Your task to perform on an android device: Open network settings Image 0: 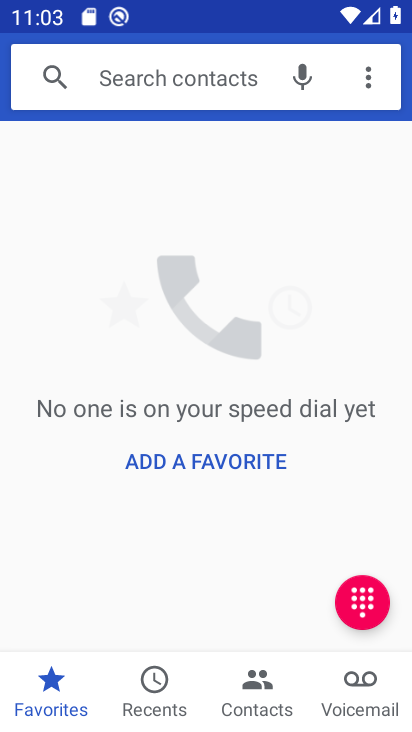
Step 0: press home button
Your task to perform on an android device: Open network settings Image 1: 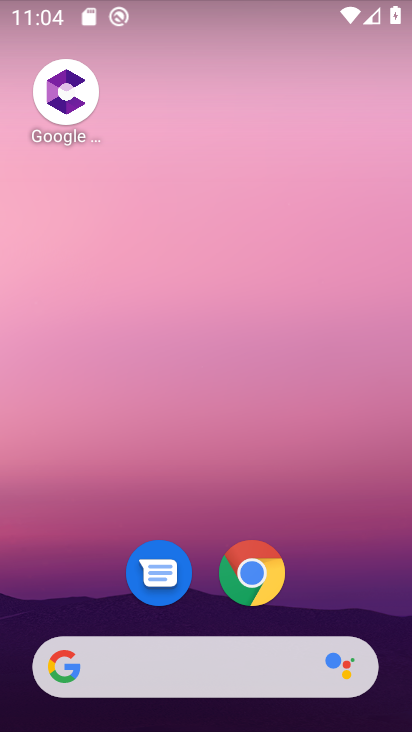
Step 1: drag from (146, 730) to (195, 143)
Your task to perform on an android device: Open network settings Image 2: 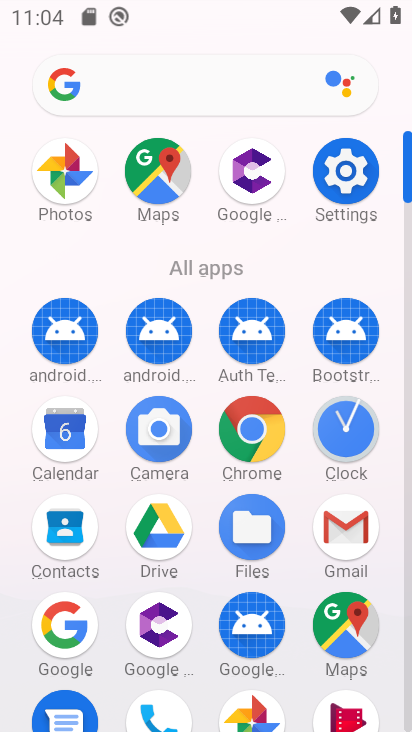
Step 2: click (353, 186)
Your task to perform on an android device: Open network settings Image 3: 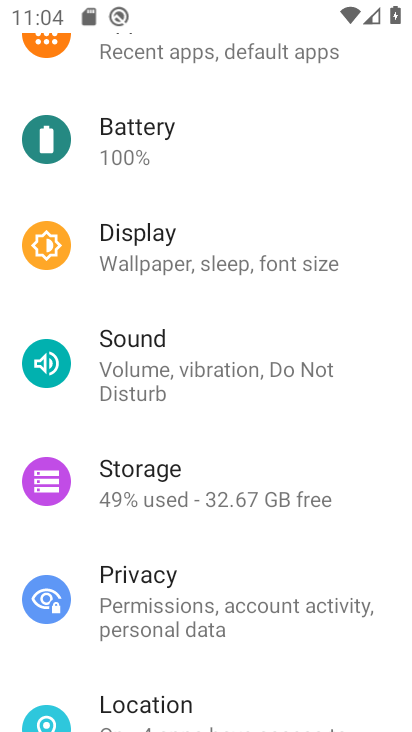
Step 3: drag from (268, 128) to (266, 544)
Your task to perform on an android device: Open network settings Image 4: 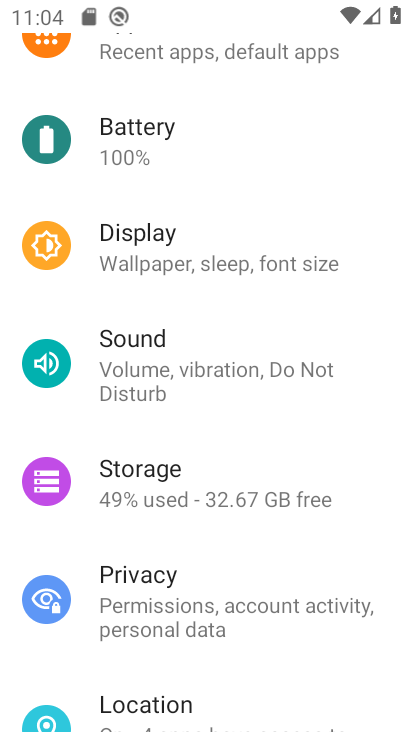
Step 4: drag from (210, 97) to (220, 543)
Your task to perform on an android device: Open network settings Image 5: 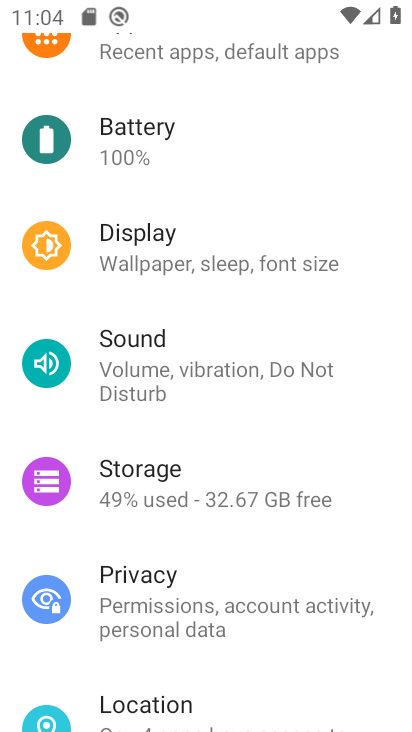
Step 5: drag from (46, 100) to (22, 586)
Your task to perform on an android device: Open network settings Image 6: 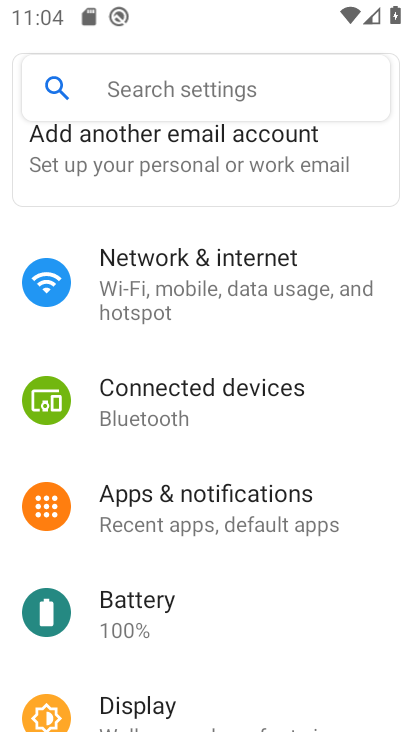
Step 6: click (204, 286)
Your task to perform on an android device: Open network settings Image 7: 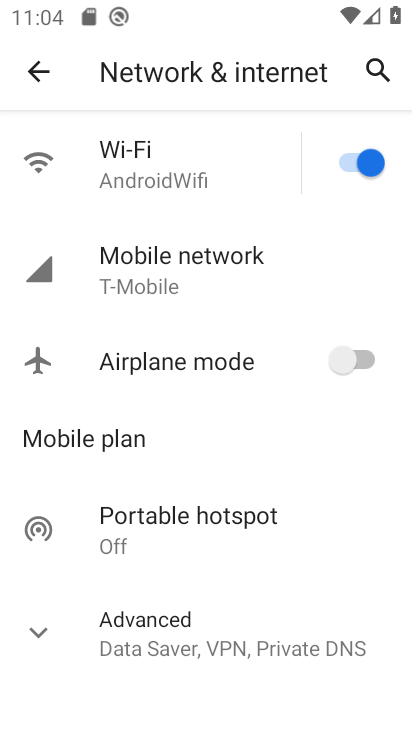
Step 7: click (192, 281)
Your task to perform on an android device: Open network settings Image 8: 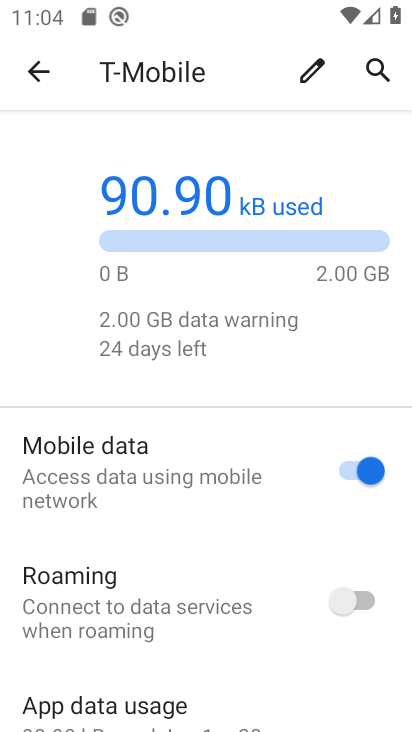
Step 8: drag from (190, 663) to (242, 228)
Your task to perform on an android device: Open network settings Image 9: 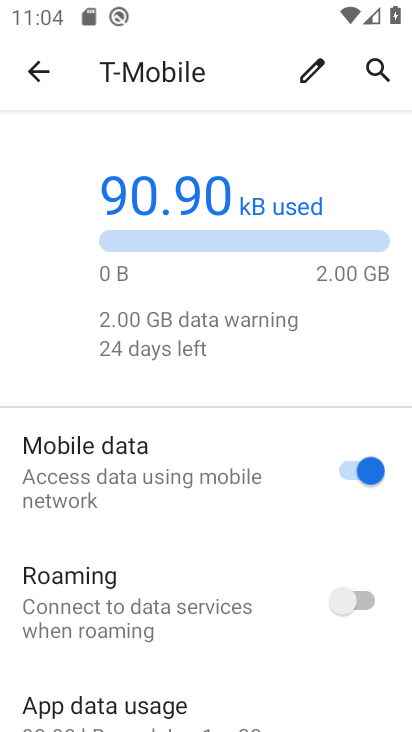
Step 9: drag from (184, 695) to (215, 298)
Your task to perform on an android device: Open network settings Image 10: 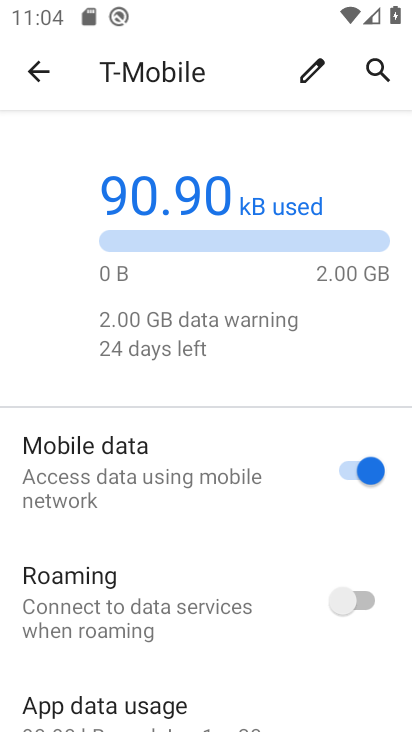
Step 10: drag from (206, 652) to (260, 286)
Your task to perform on an android device: Open network settings Image 11: 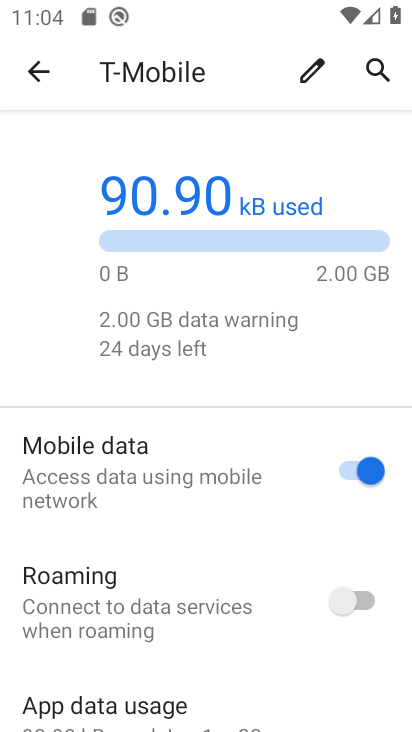
Step 11: drag from (195, 685) to (261, 211)
Your task to perform on an android device: Open network settings Image 12: 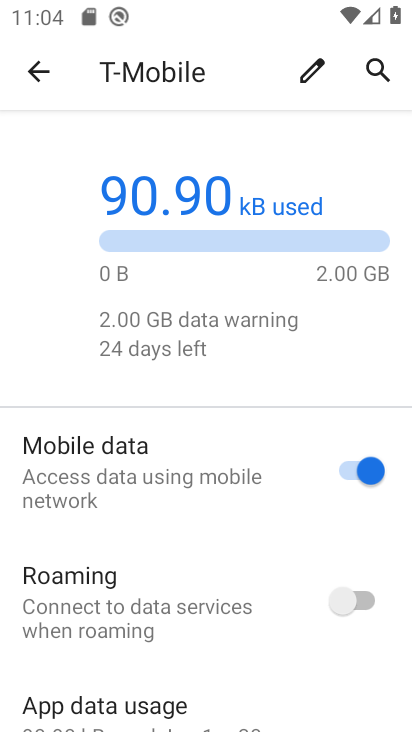
Step 12: drag from (57, 686) to (109, 153)
Your task to perform on an android device: Open network settings Image 13: 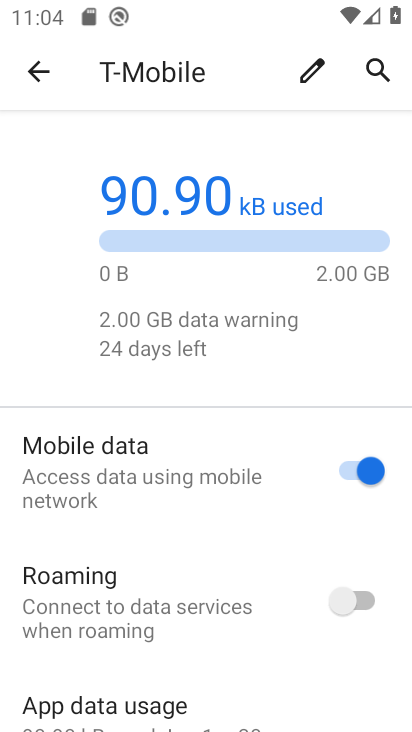
Step 13: drag from (19, 684) to (30, 162)
Your task to perform on an android device: Open network settings Image 14: 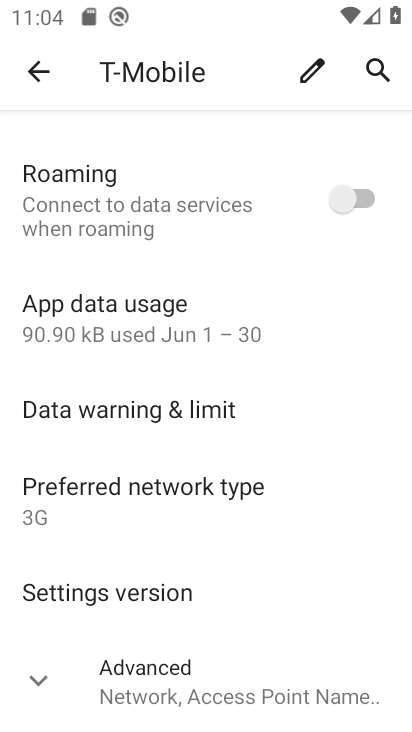
Step 14: click (188, 684)
Your task to perform on an android device: Open network settings Image 15: 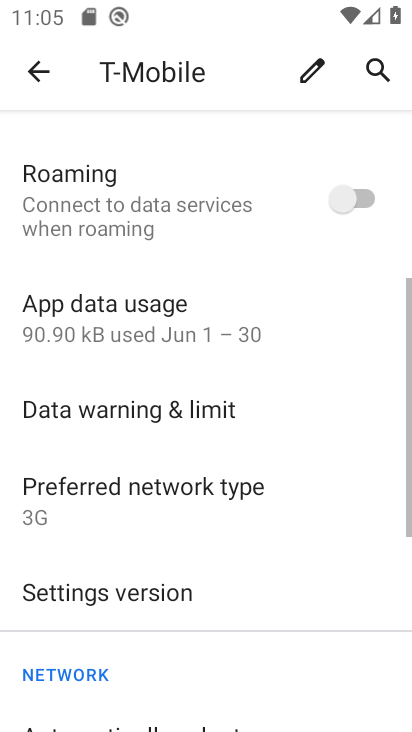
Step 15: task complete